Your task to perform on an android device: Open Chrome and go to settings Image 0: 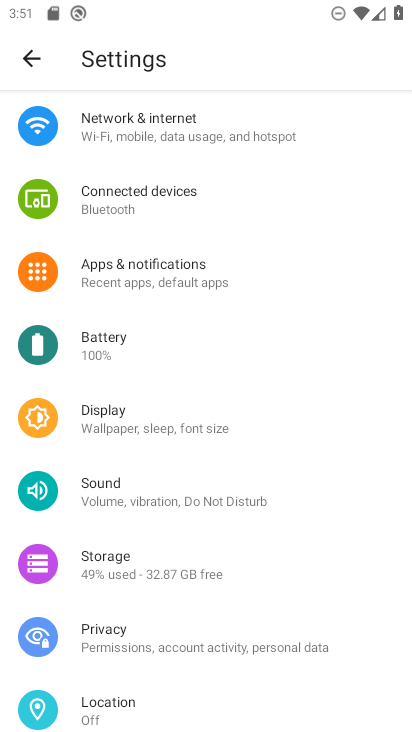
Step 0: press back button
Your task to perform on an android device: Open Chrome and go to settings Image 1: 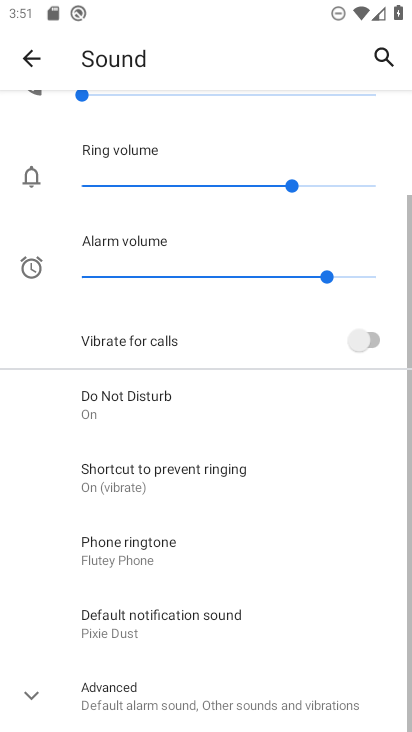
Step 1: press back button
Your task to perform on an android device: Open Chrome and go to settings Image 2: 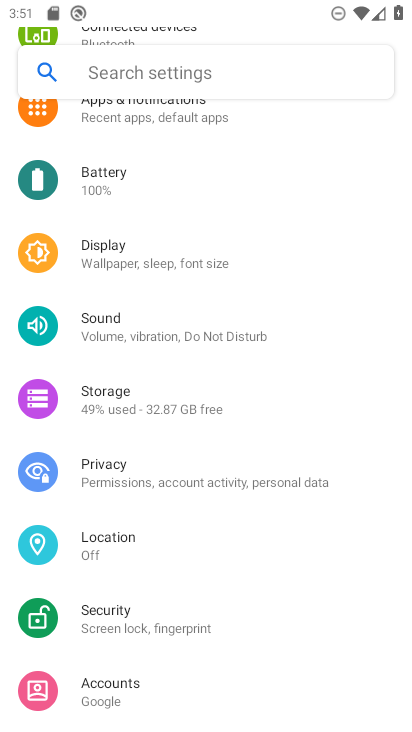
Step 2: press home button
Your task to perform on an android device: Open Chrome and go to settings Image 3: 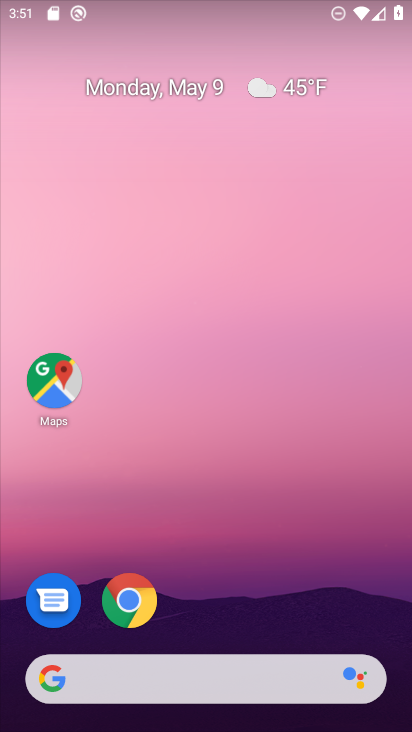
Step 3: drag from (300, 553) to (284, 5)
Your task to perform on an android device: Open Chrome and go to settings Image 4: 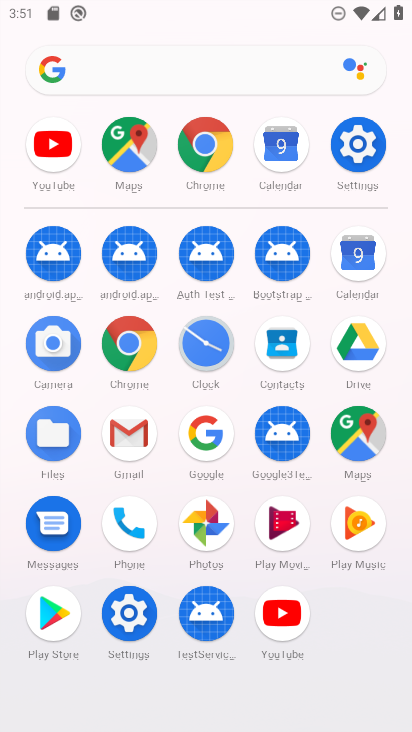
Step 4: drag from (7, 468) to (13, 156)
Your task to perform on an android device: Open Chrome and go to settings Image 5: 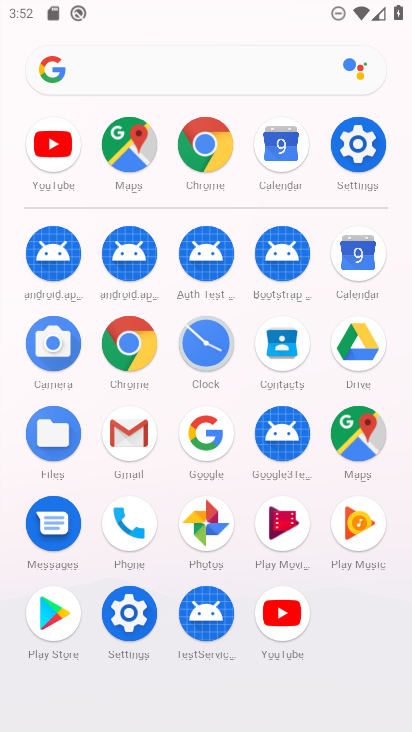
Step 5: drag from (8, 560) to (15, 286)
Your task to perform on an android device: Open Chrome and go to settings Image 6: 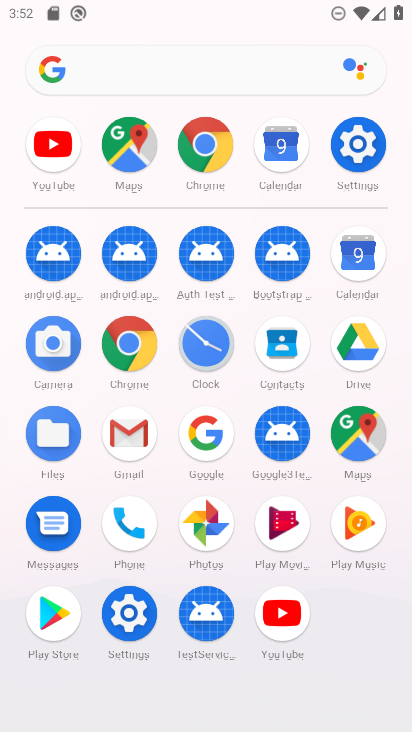
Step 6: click (127, 341)
Your task to perform on an android device: Open Chrome and go to settings Image 7: 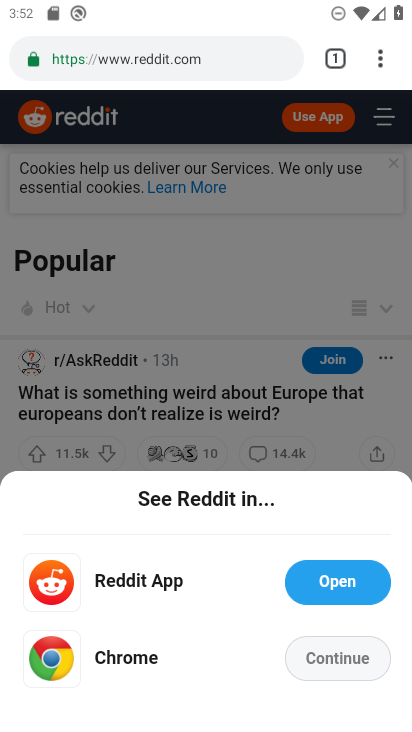
Step 7: task complete